Your task to perform on an android device: refresh tabs in the chrome app Image 0: 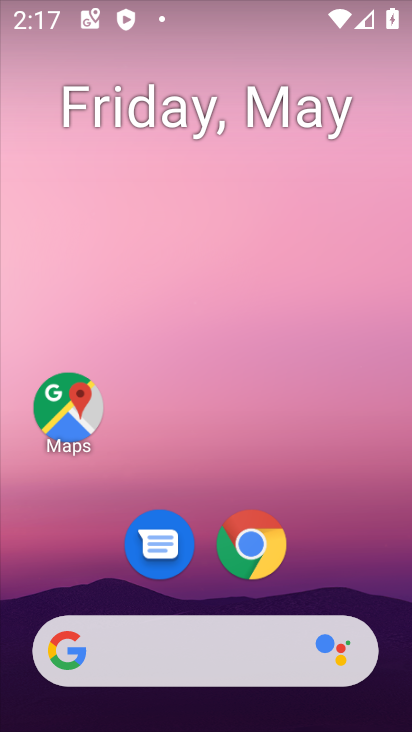
Step 0: click (242, 545)
Your task to perform on an android device: refresh tabs in the chrome app Image 1: 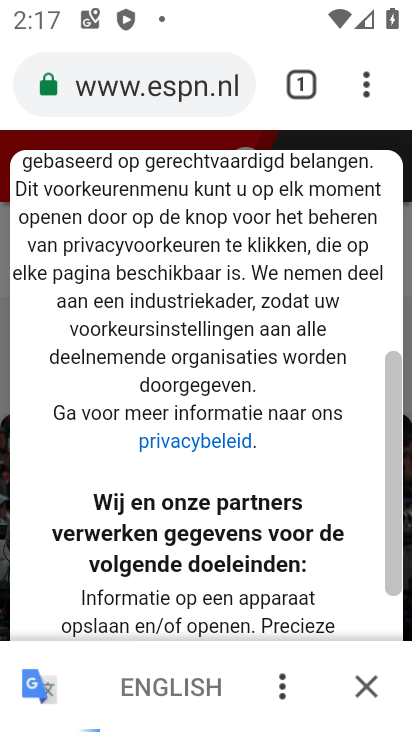
Step 1: task complete